Your task to perform on an android device: open app "Fetch Rewards" (install if not already installed) and go to login screen Image 0: 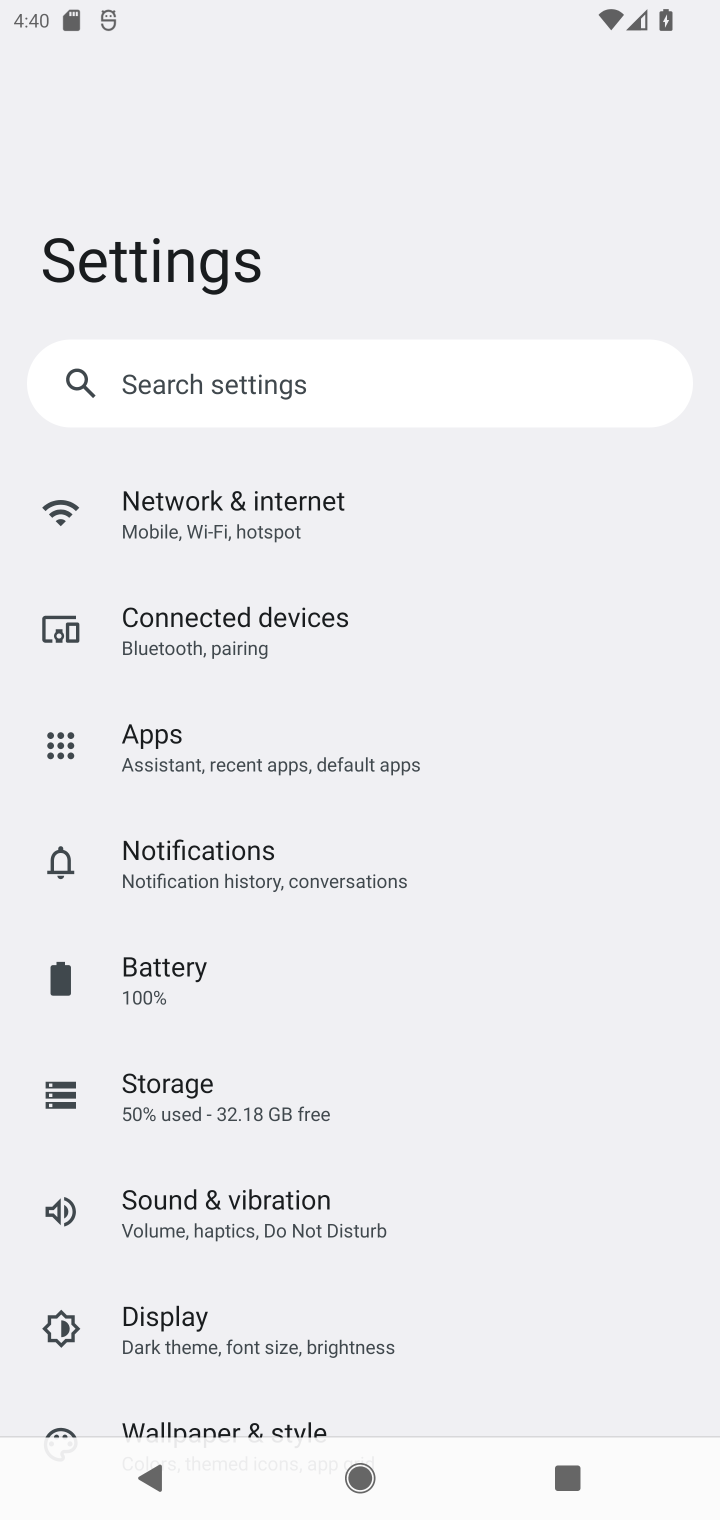
Step 0: press home button
Your task to perform on an android device: open app "Fetch Rewards" (install if not already installed) and go to login screen Image 1: 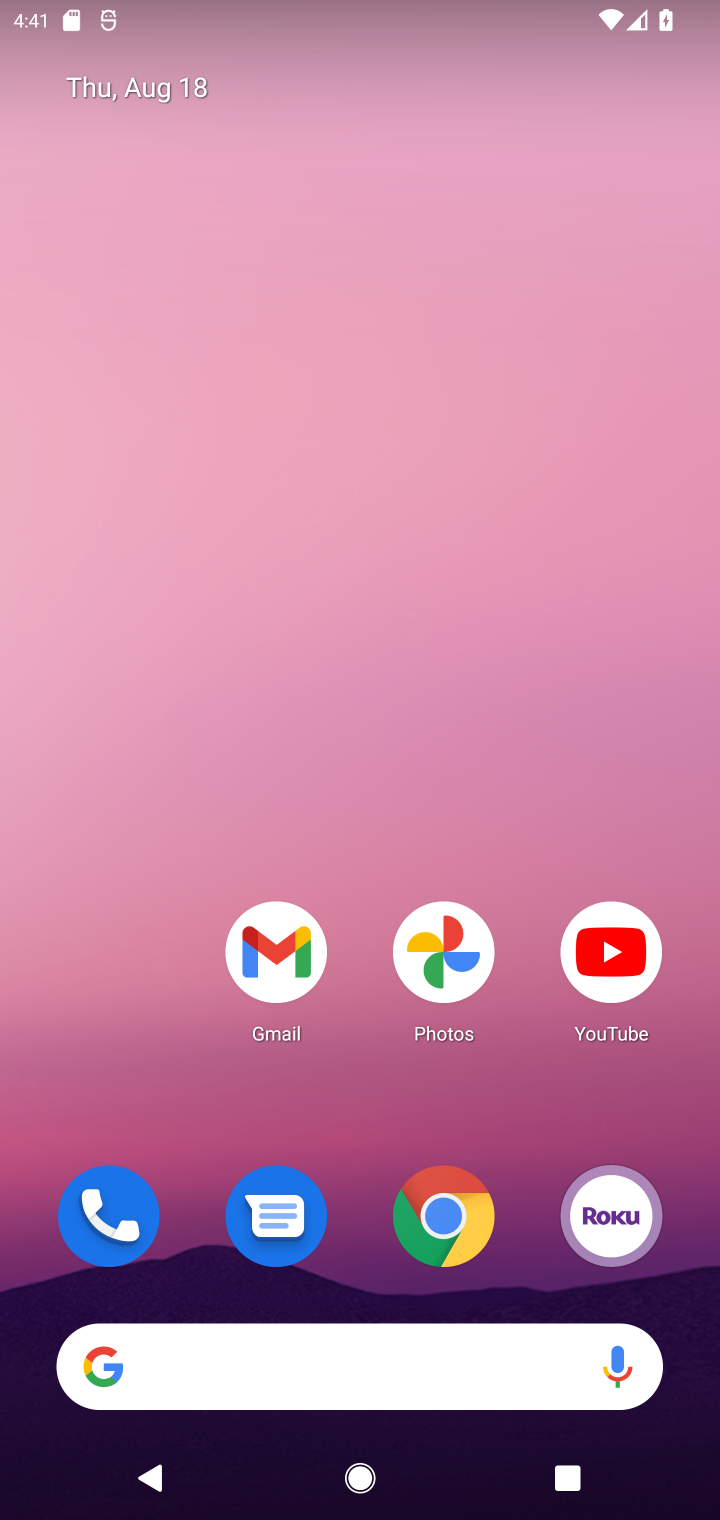
Step 1: drag from (406, 931) to (459, 260)
Your task to perform on an android device: open app "Fetch Rewards" (install if not already installed) and go to login screen Image 2: 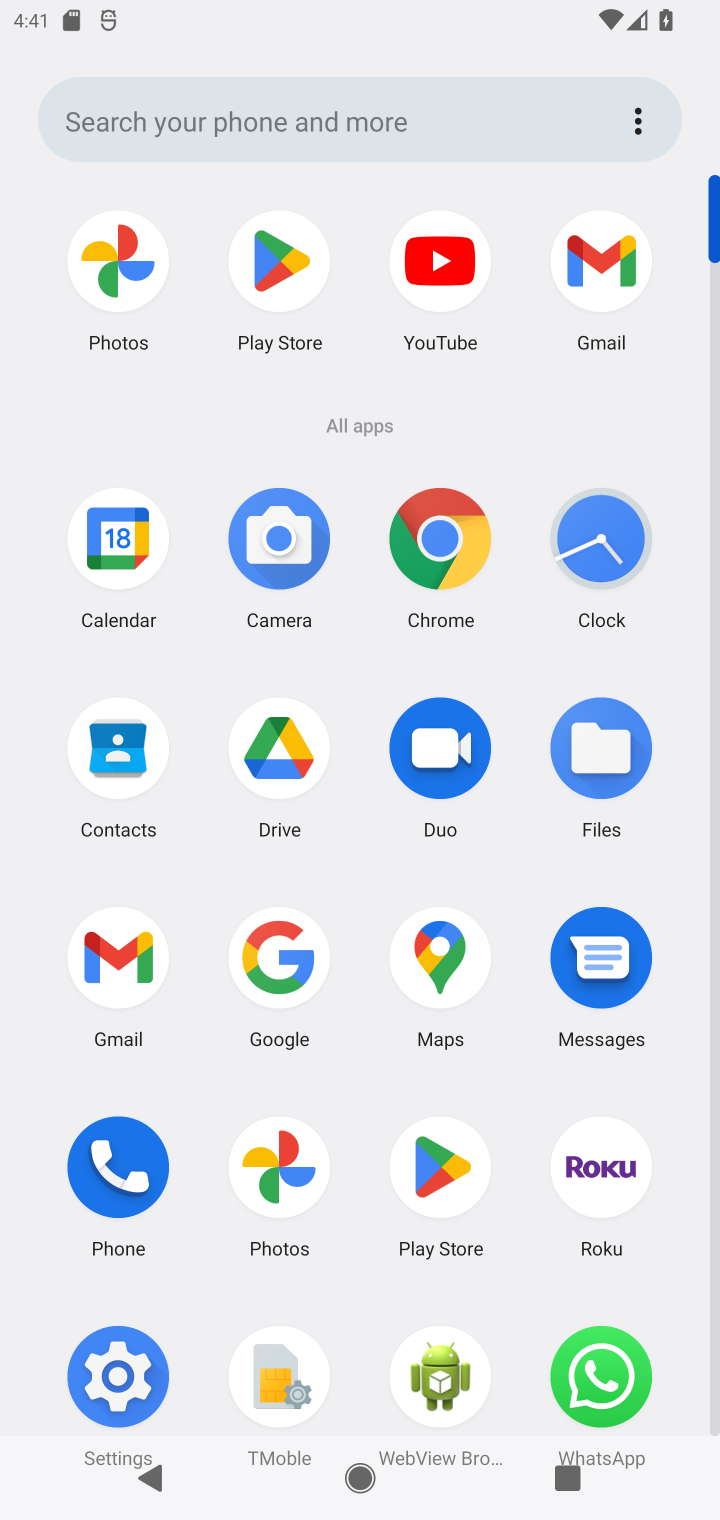
Step 2: click (253, 245)
Your task to perform on an android device: open app "Fetch Rewards" (install if not already installed) and go to login screen Image 3: 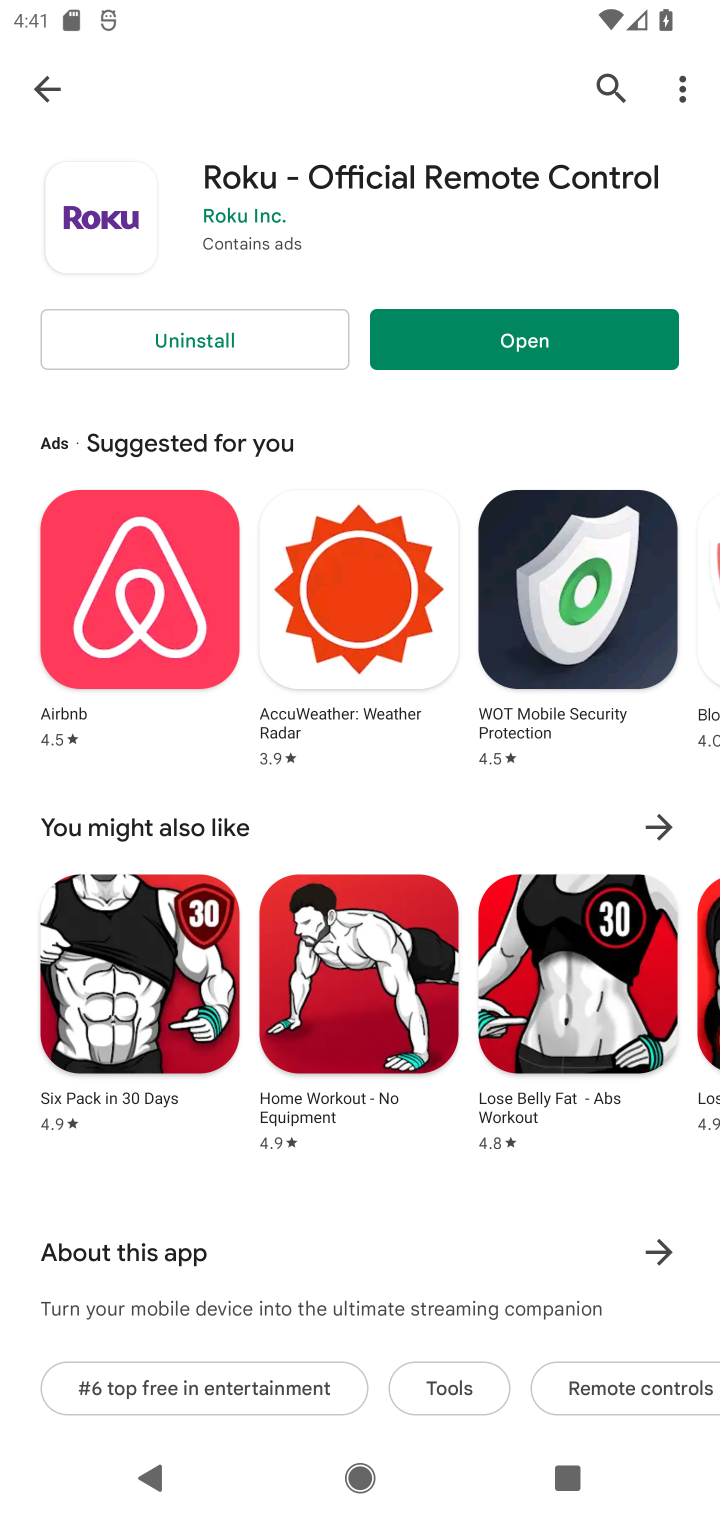
Step 3: drag from (546, 361) to (623, 491)
Your task to perform on an android device: open app "Fetch Rewards" (install if not already installed) and go to login screen Image 4: 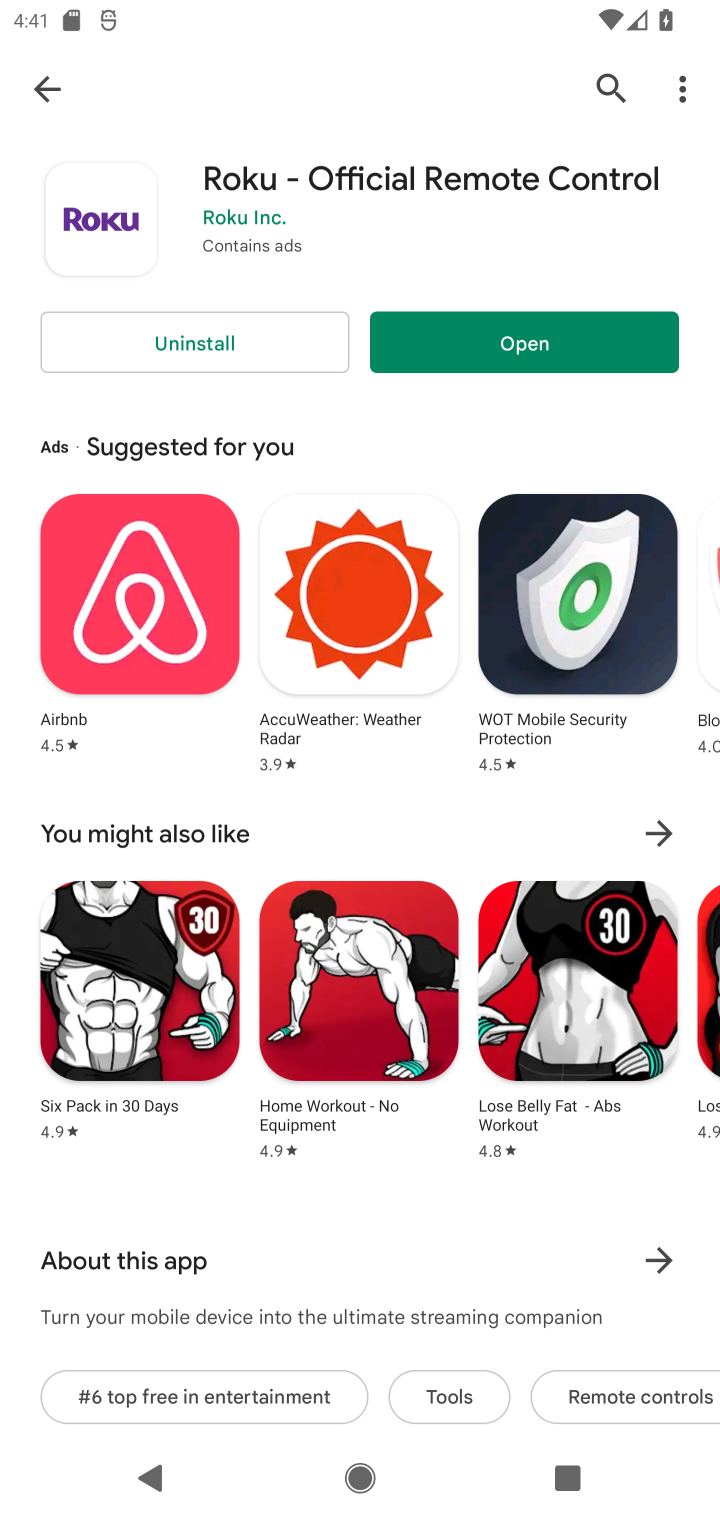
Step 4: click (604, 76)
Your task to perform on an android device: open app "Fetch Rewards" (install if not already installed) and go to login screen Image 5: 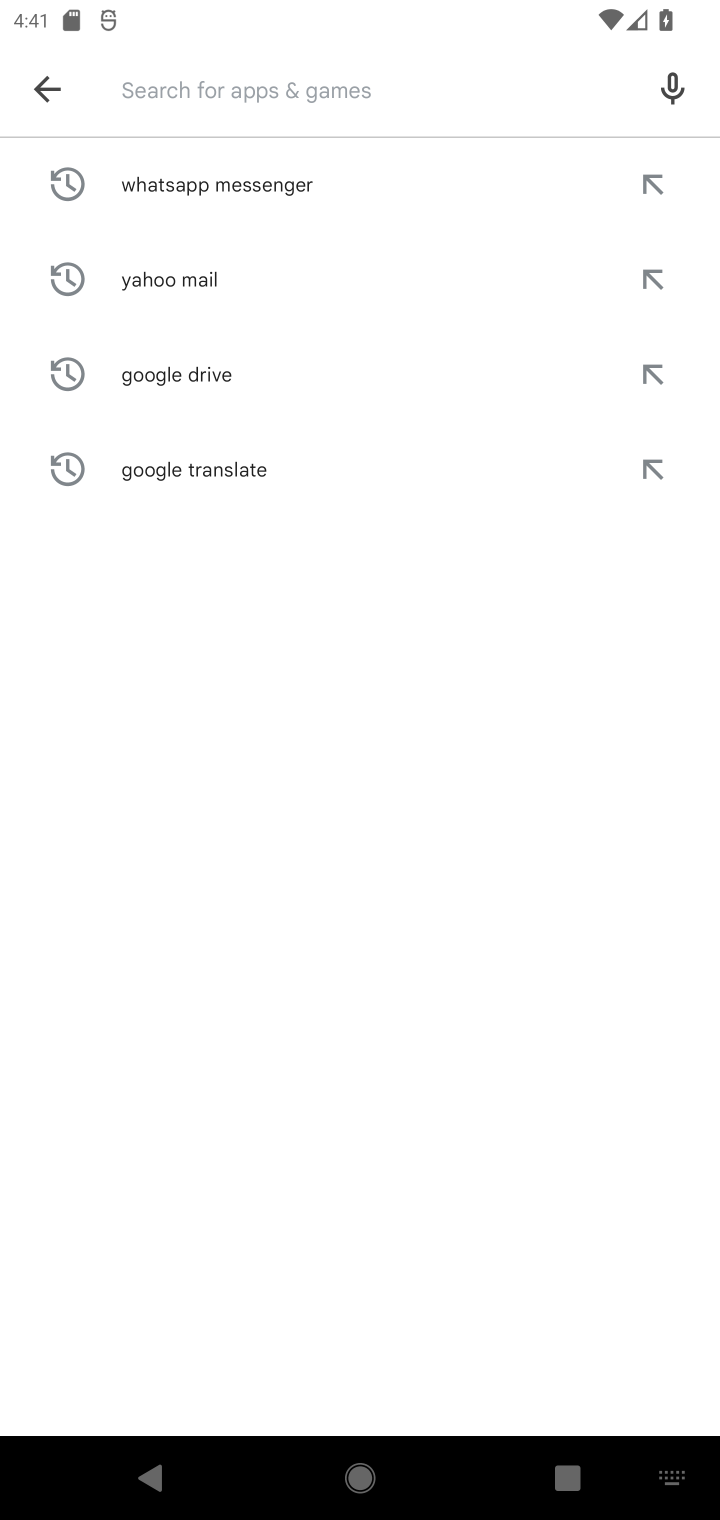
Step 5: type "Fetch Rewards"
Your task to perform on an android device: open app "Fetch Rewards" (install if not already installed) and go to login screen Image 6: 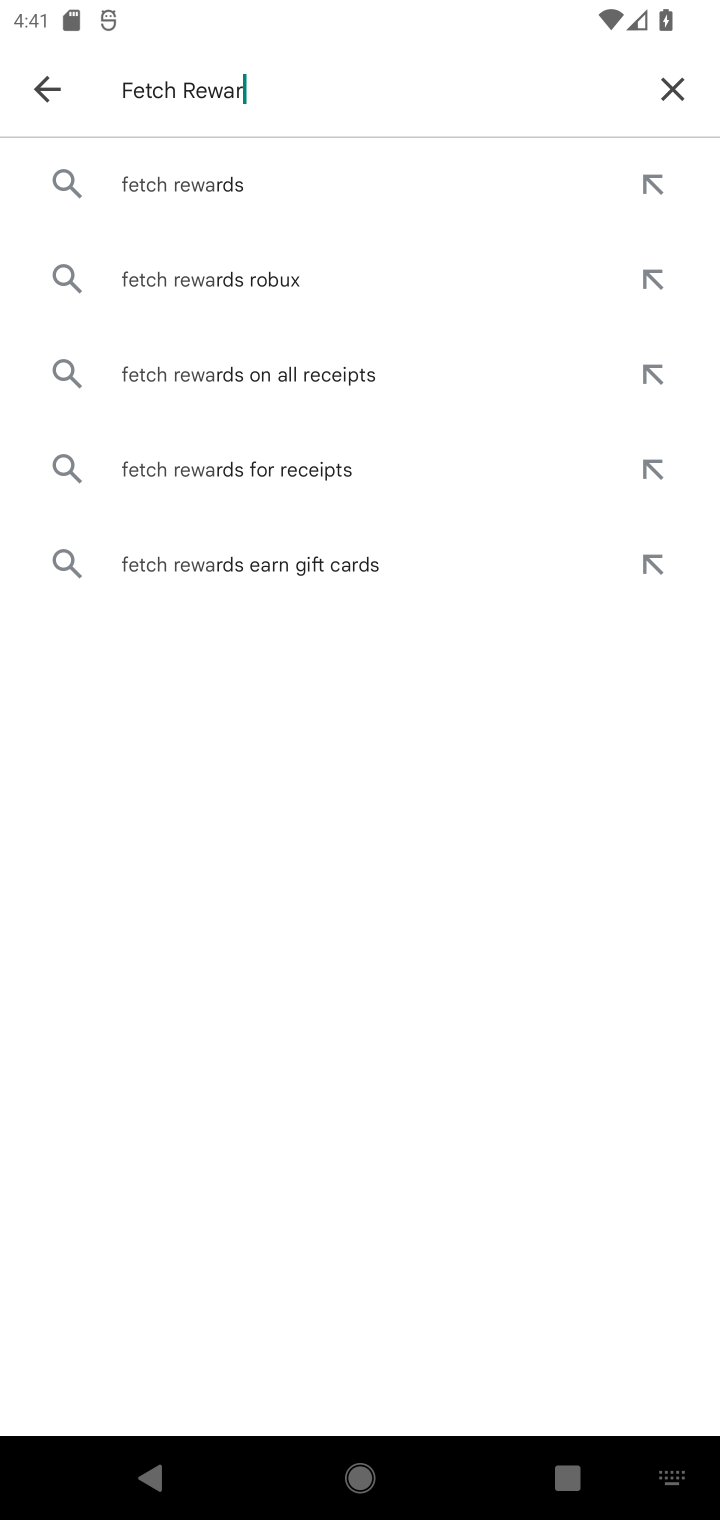
Step 6: type ""
Your task to perform on an android device: open app "Fetch Rewards" (install if not already installed) and go to login screen Image 7: 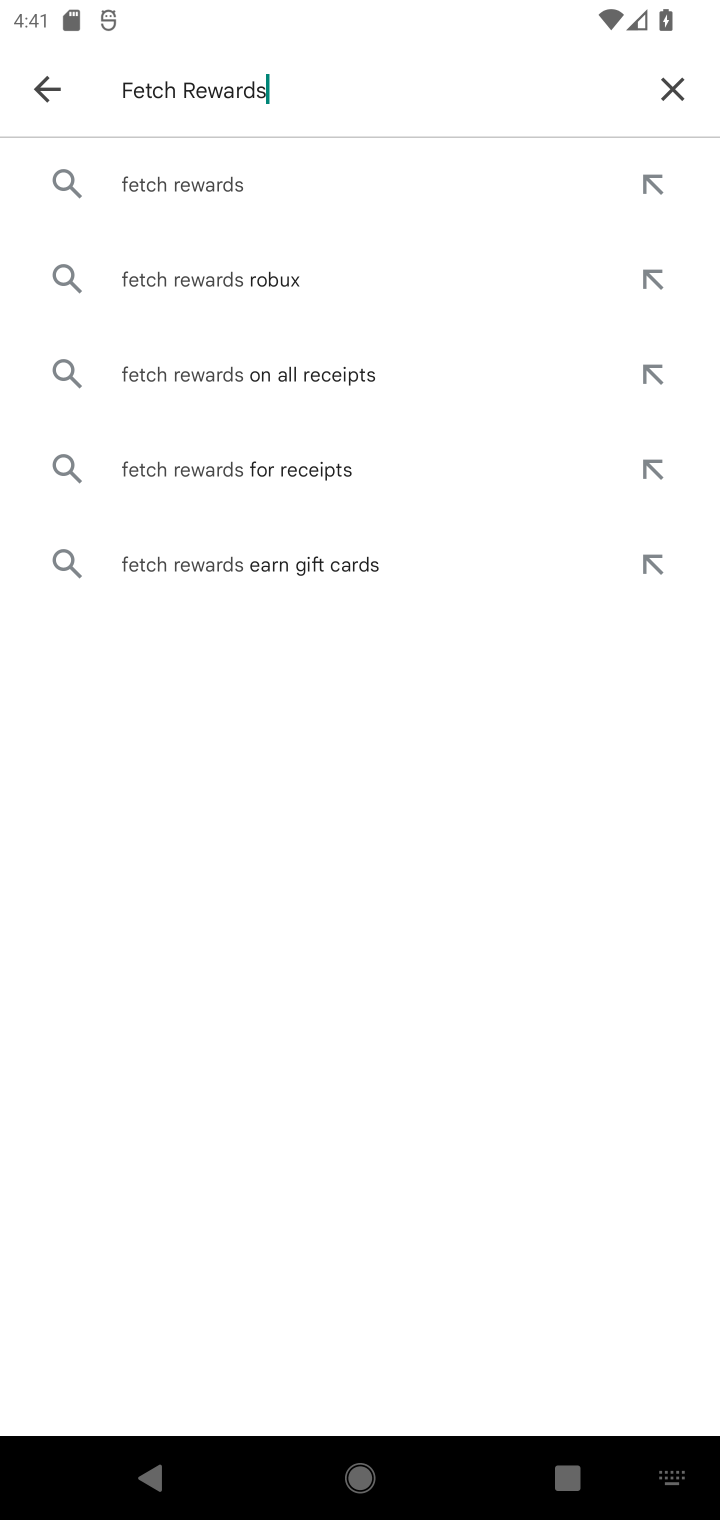
Step 7: click (270, 187)
Your task to perform on an android device: open app "Fetch Rewards" (install if not already installed) and go to login screen Image 8: 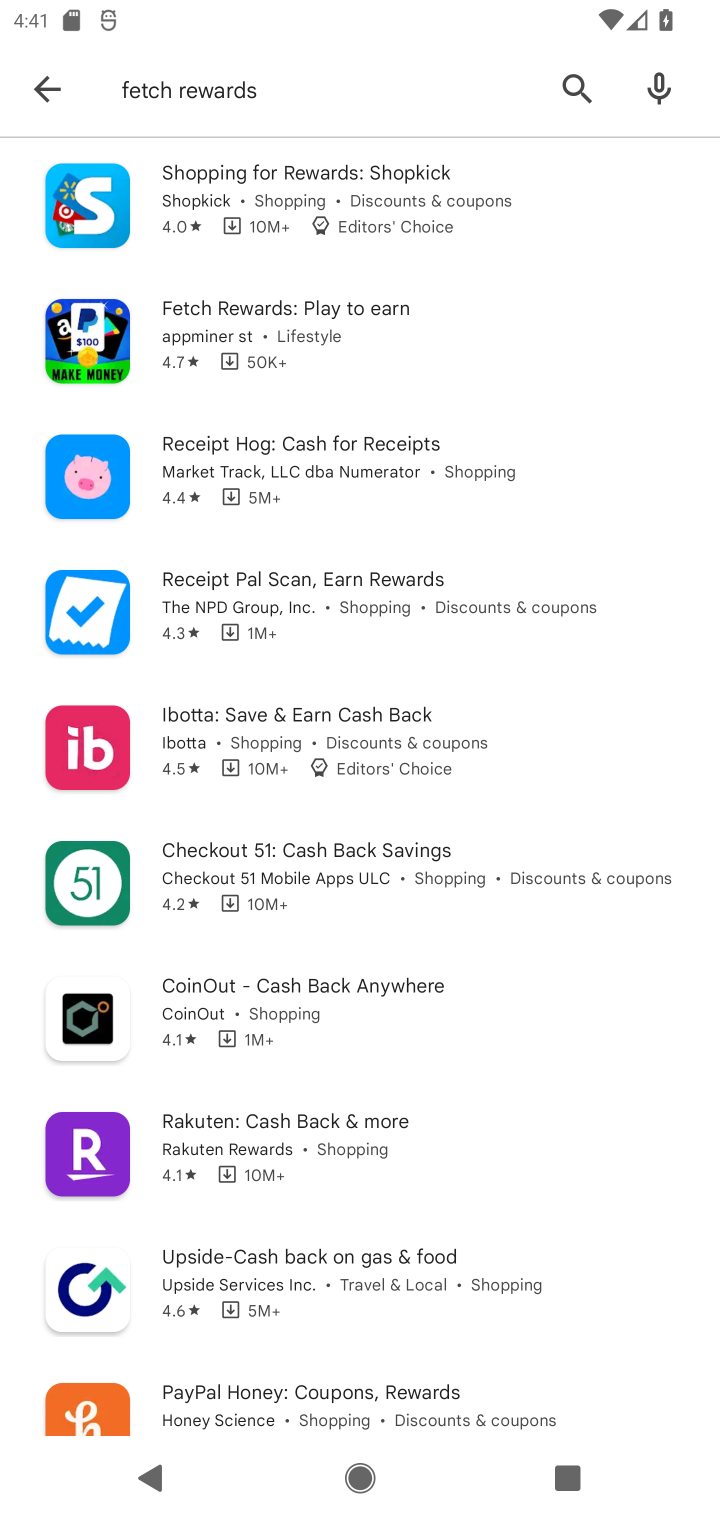
Step 8: task complete